Your task to perform on an android device: Go to Maps Image 0: 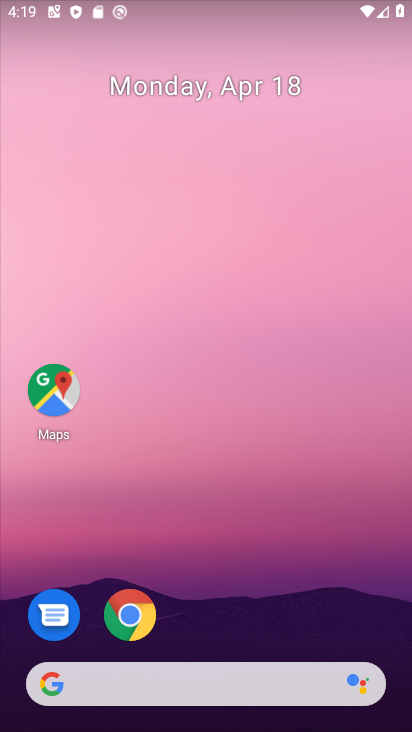
Step 0: click (50, 393)
Your task to perform on an android device: Go to Maps Image 1: 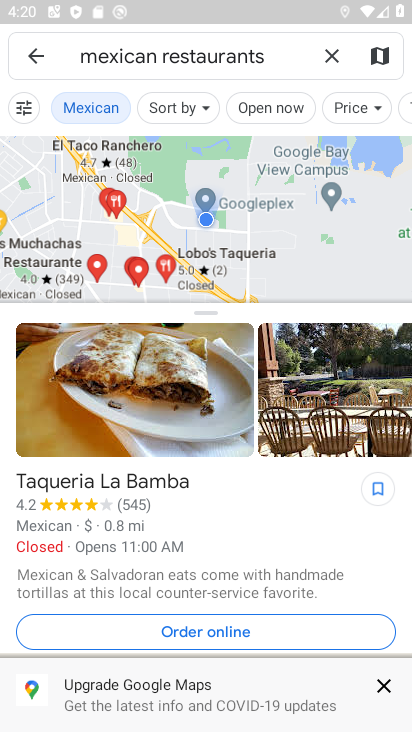
Step 1: task complete